Your task to perform on an android device: Is it going to rain this weekend? Image 0: 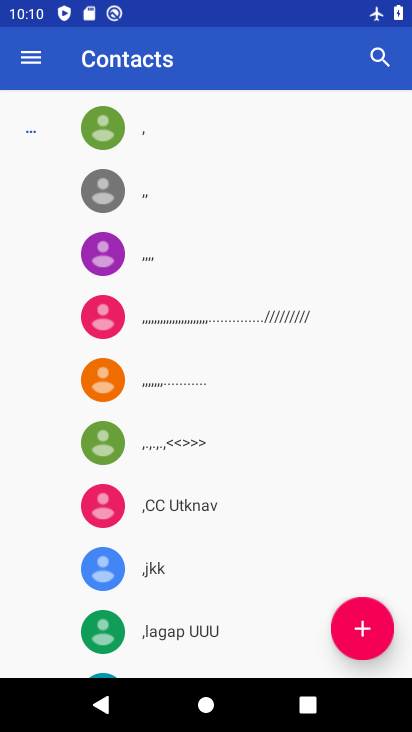
Step 0: press home button
Your task to perform on an android device: Is it going to rain this weekend? Image 1: 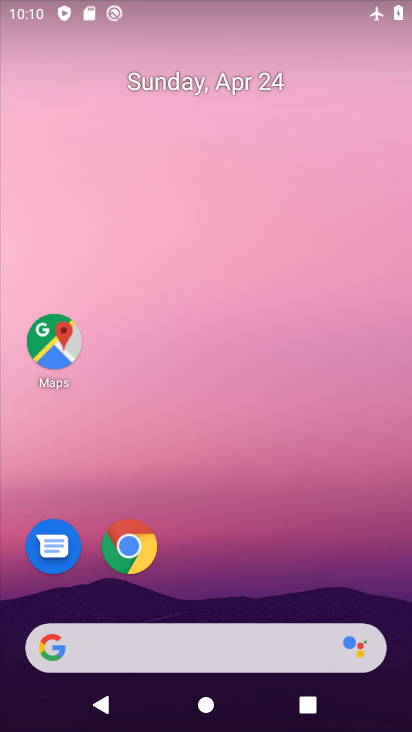
Step 1: click (154, 649)
Your task to perform on an android device: Is it going to rain this weekend? Image 2: 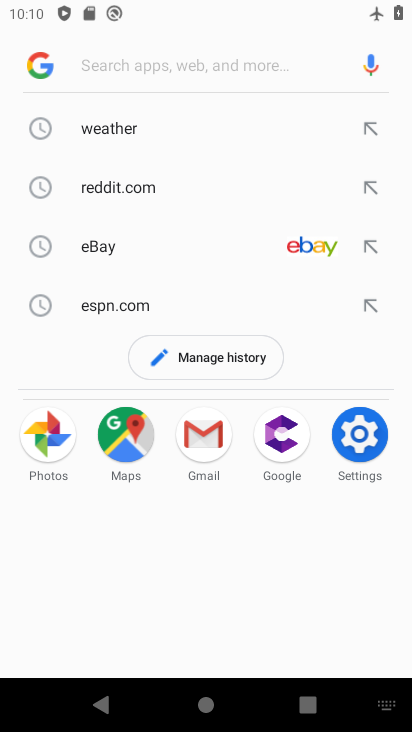
Step 2: click (118, 121)
Your task to perform on an android device: Is it going to rain this weekend? Image 3: 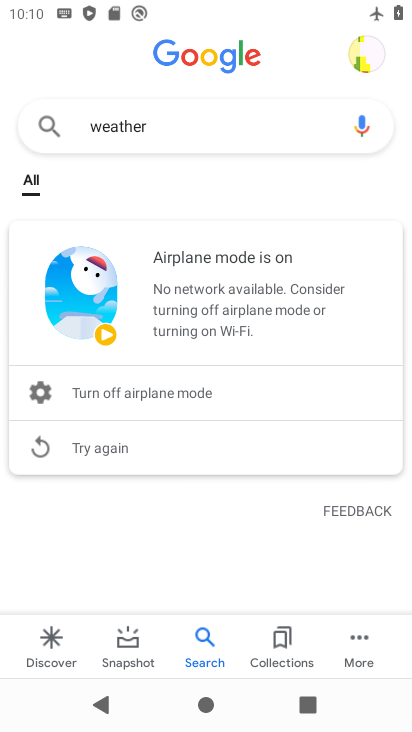
Step 3: task complete